Your task to perform on an android device: Search for pizza restaurants on Maps Image 0: 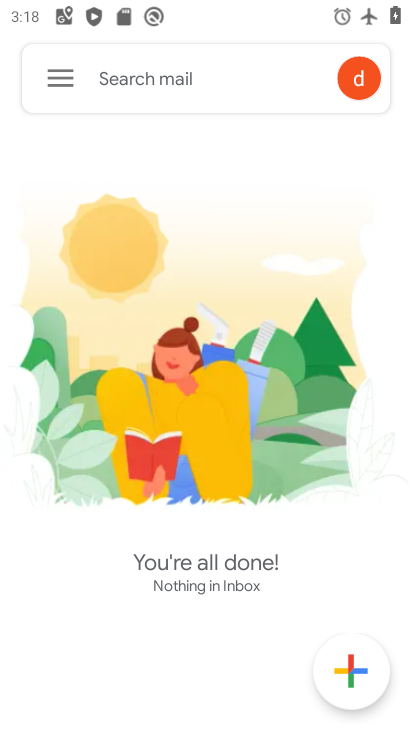
Step 0: press home button
Your task to perform on an android device: Search for pizza restaurants on Maps Image 1: 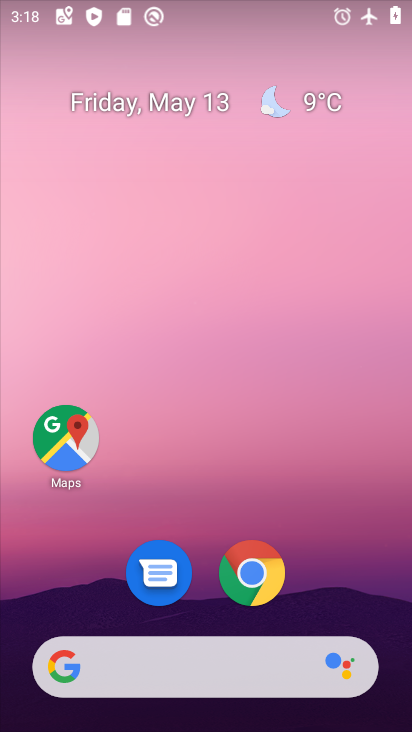
Step 1: click (65, 441)
Your task to perform on an android device: Search for pizza restaurants on Maps Image 2: 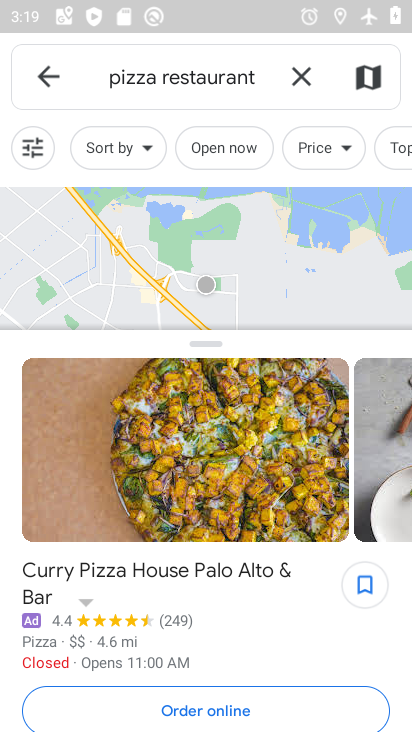
Step 2: click (309, 76)
Your task to perform on an android device: Search for pizza restaurants on Maps Image 3: 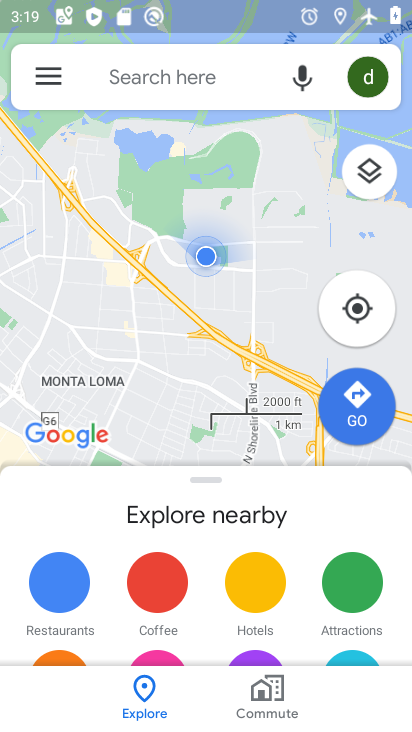
Step 3: click (159, 77)
Your task to perform on an android device: Search for pizza restaurants on Maps Image 4: 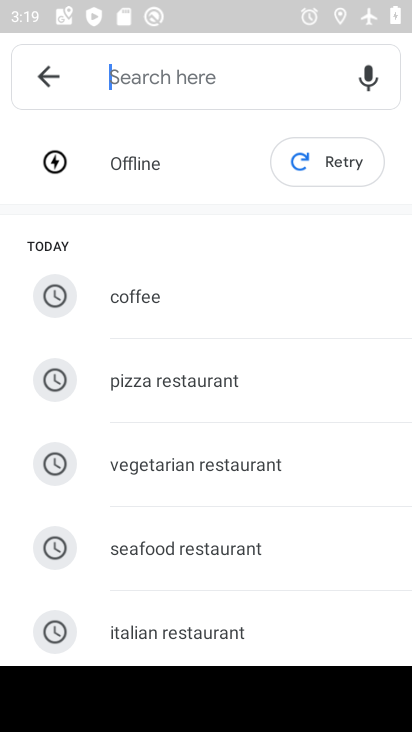
Step 4: type "pizza restaurants"
Your task to perform on an android device: Search for pizza restaurants on Maps Image 5: 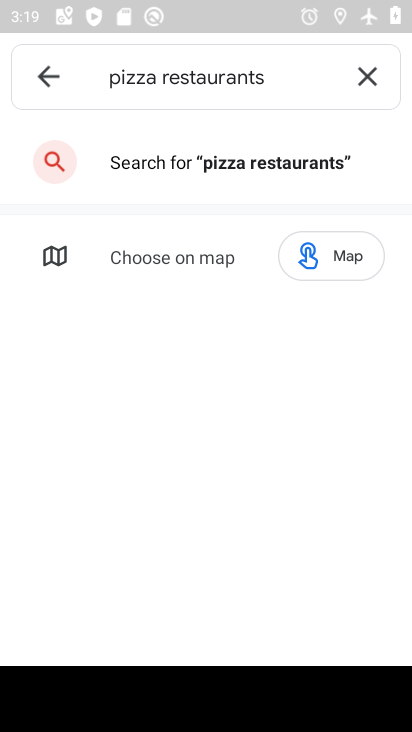
Step 5: task complete